Your task to perform on an android device: open app "Expedia: Hotels, Flights & Car" Image 0: 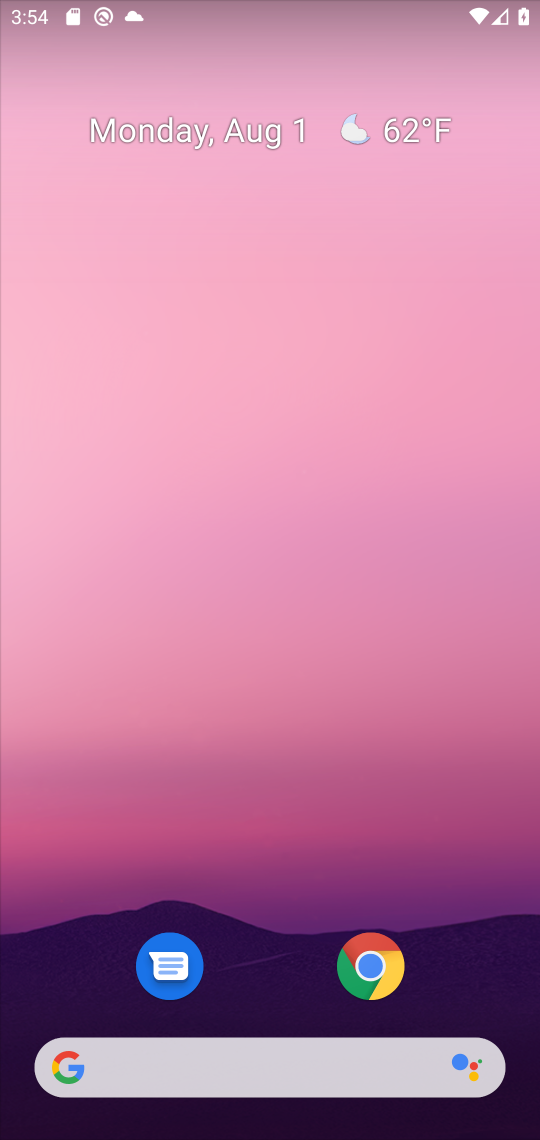
Step 0: drag from (217, 987) to (192, 214)
Your task to perform on an android device: open app "Expedia: Hotels, Flights & Car" Image 1: 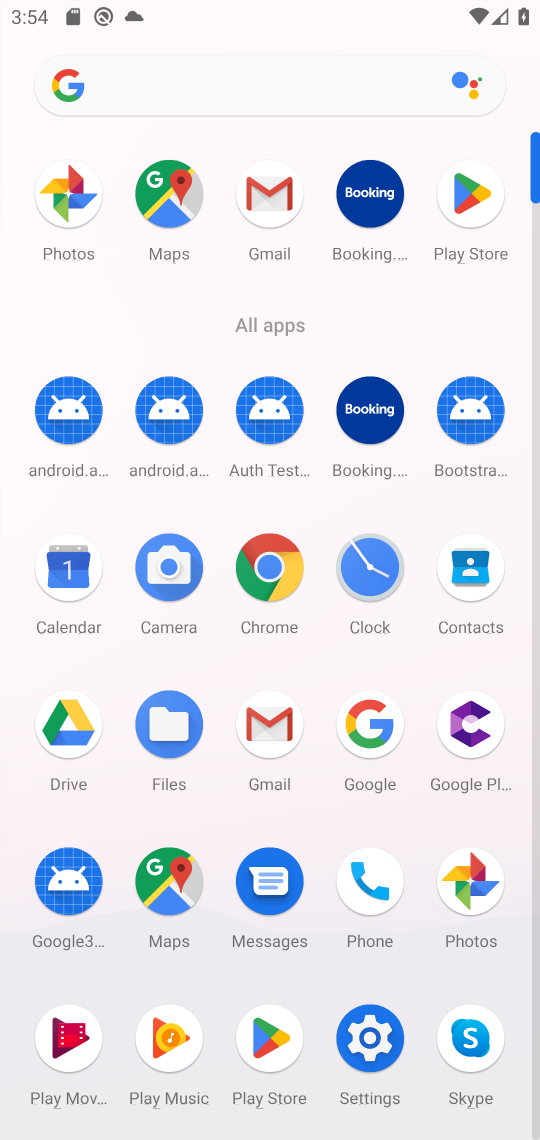
Step 1: click (255, 1031)
Your task to perform on an android device: open app "Expedia: Hotels, Flights & Car" Image 2: 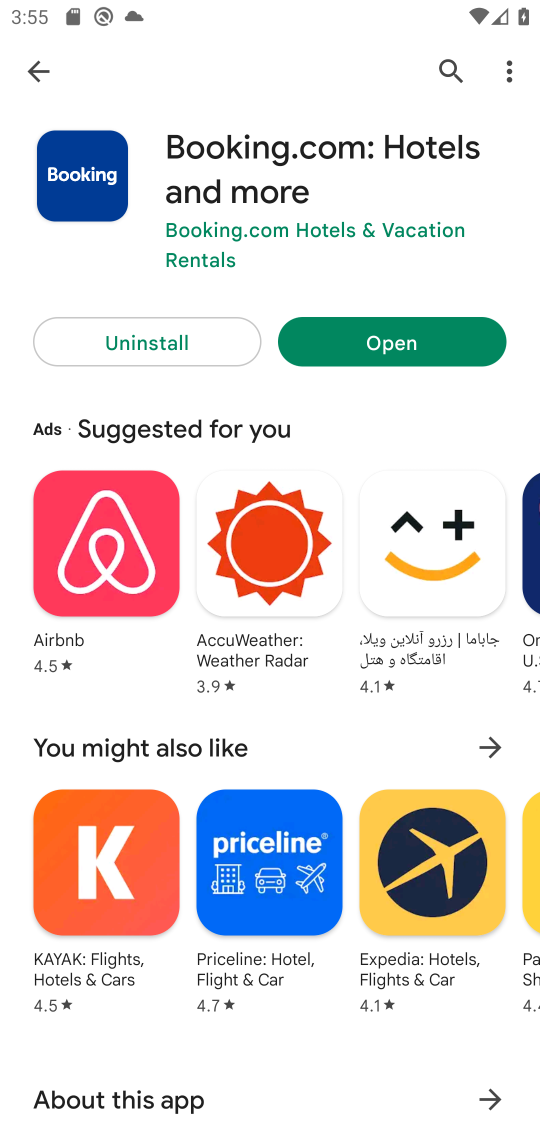
Step 2: click (34, 70)
Your task to perform on an android device: open app "Expedia: Hotels, Flights & Car" Image 3: 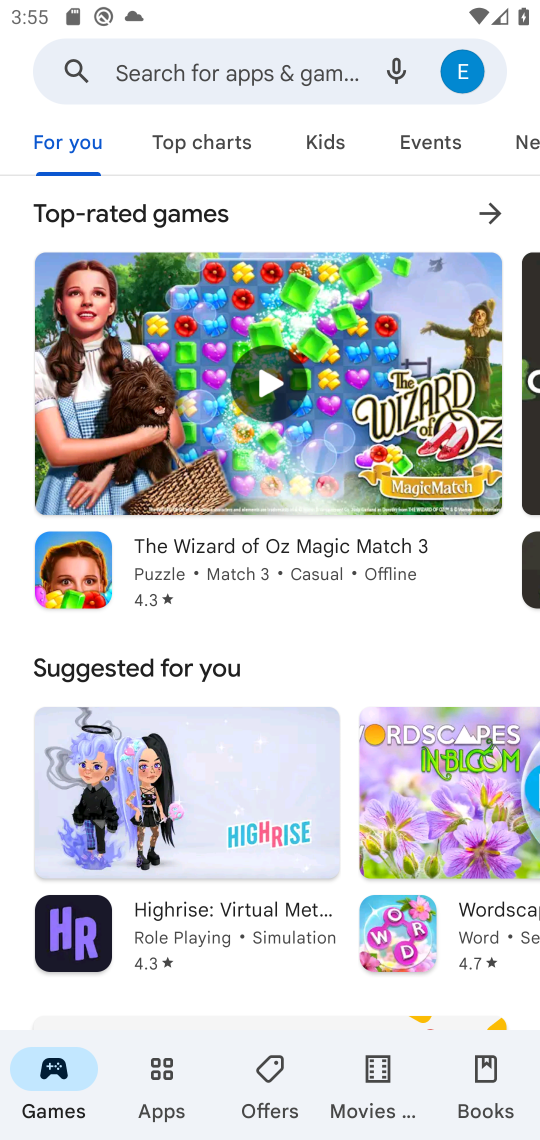
Step 3: click (193, 66)
Your task to perform on an android device: open app "Expedia: Hotels, Flights & Car" Image 4: 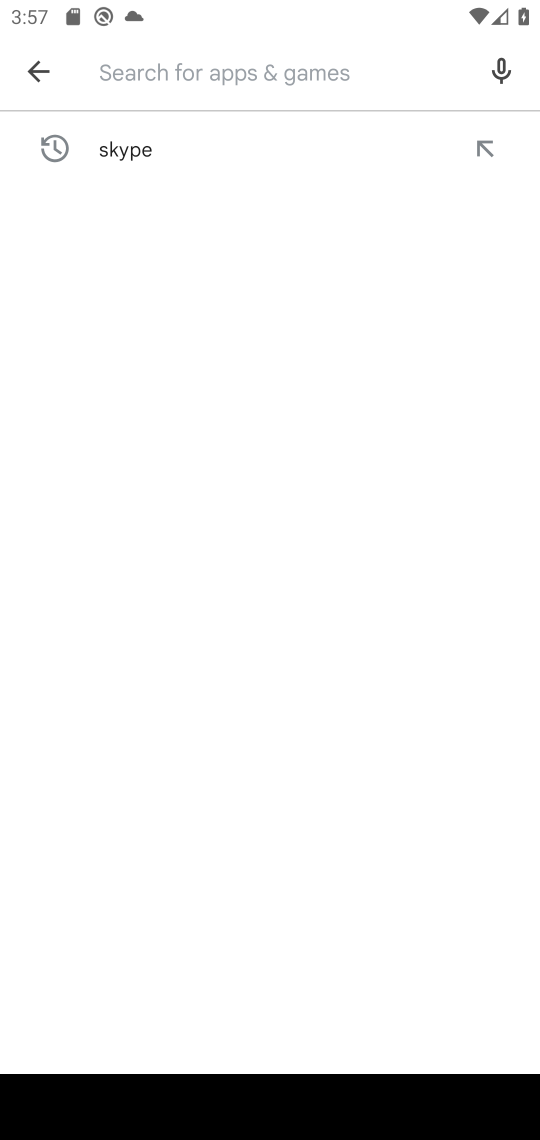
Step 4: type "Expedia: Hotels, Flights & Car"
Your task to perform on an android device: open app "Expedia: Hotels, Flights & Car" Image 5: 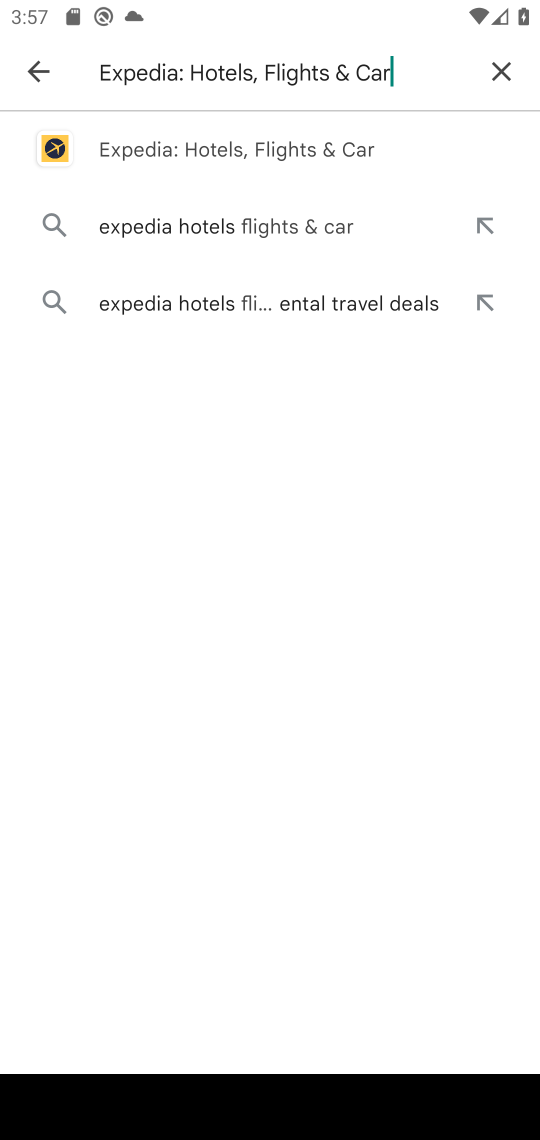
Step 5: click (163, 145)
Your task to perform on an android device: open app "Expedia: Hotels, Flights & Car" Image 6: 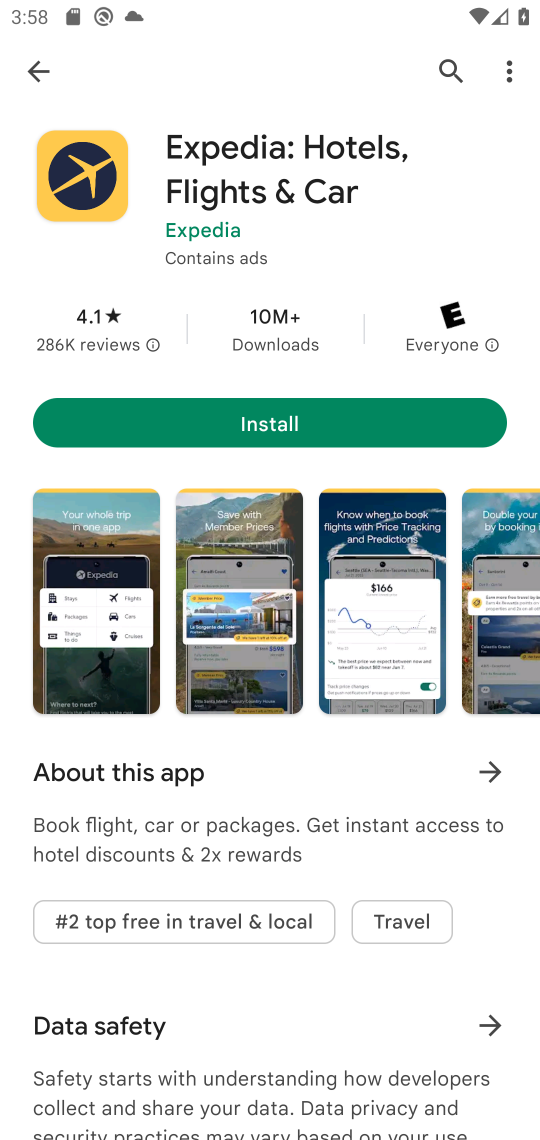
Step 6: click (280, 419)
Your task to perform on an android device: open app "Expedia: Hotels, Flights & Car" Image 7: 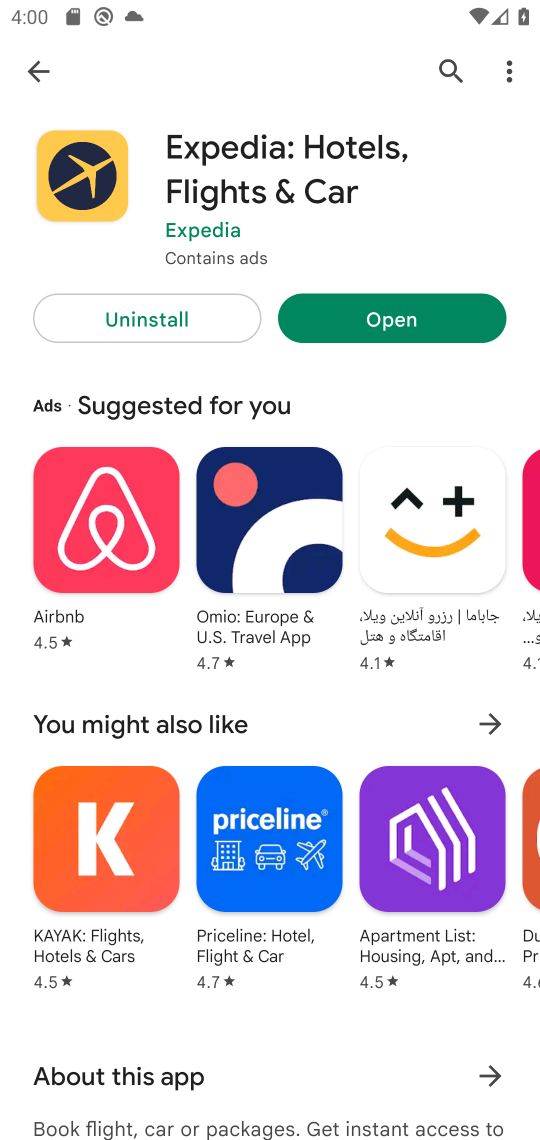
Step 7: click (389, 322)
Your task to perform on an android device: open app "Expedia: Hotels, Flights & Car" Image 8: 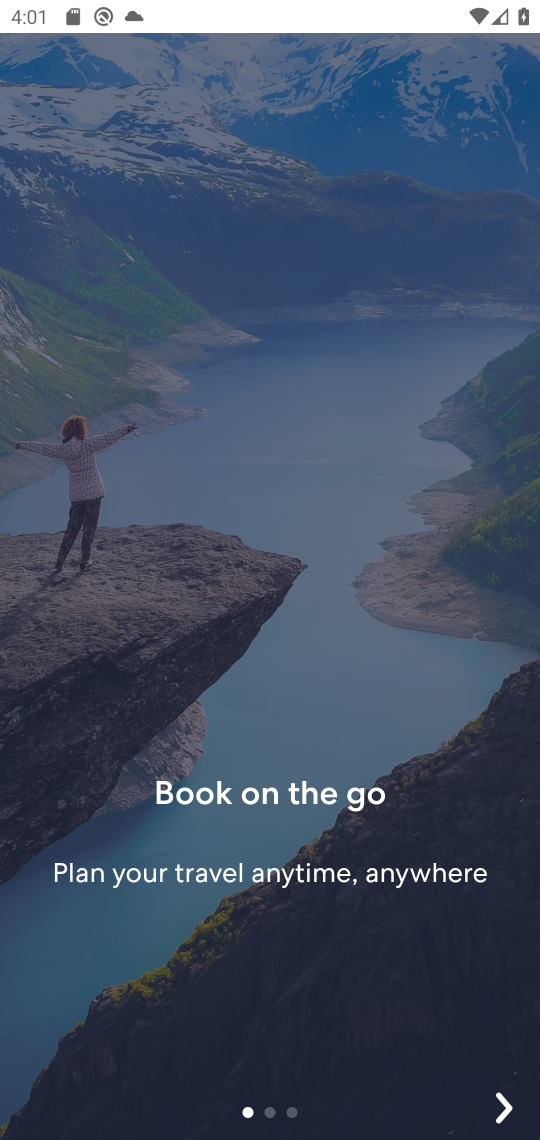
Step 8: click (491, 1113)
Your task to perform on an android device: open app "Expedia: Hotels, Flights & Car" Image 9: 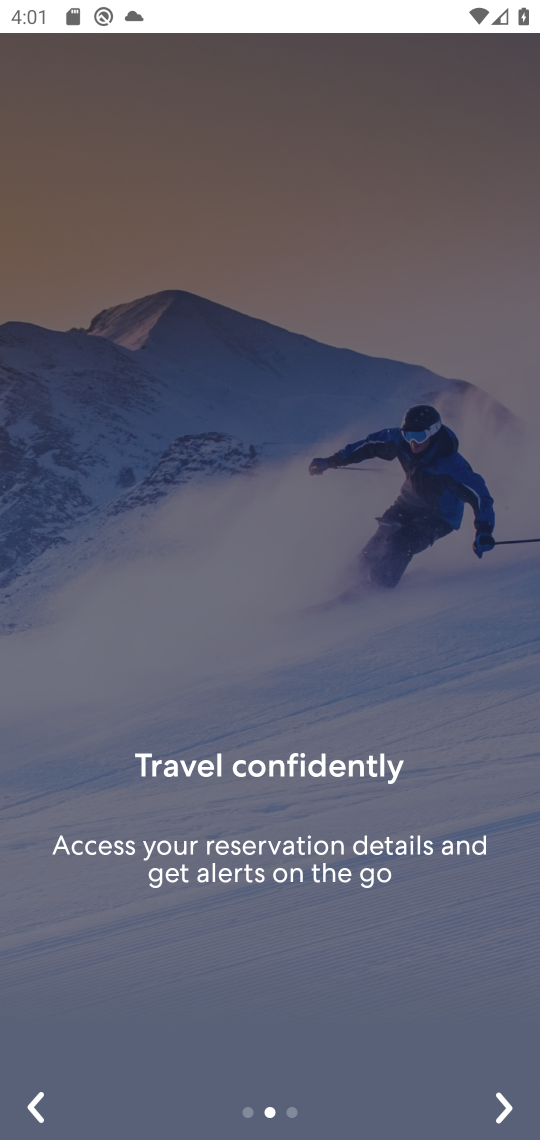
Step 9: task complete